Your task to perform on an android device: toggle location history Image 0: 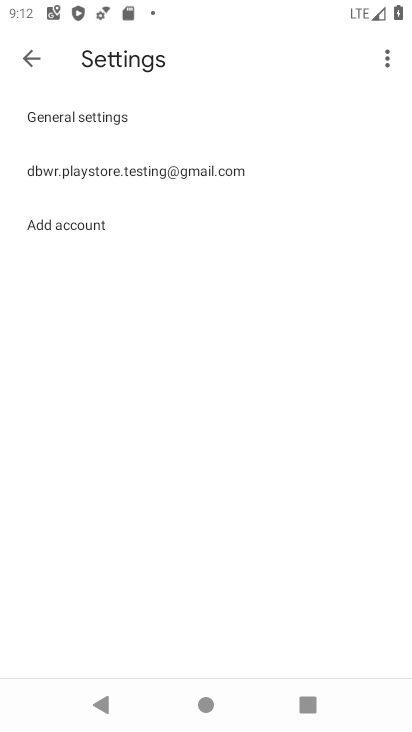
Step 0: press home button
Your task to perform on an android device: toggle location history Image 1: 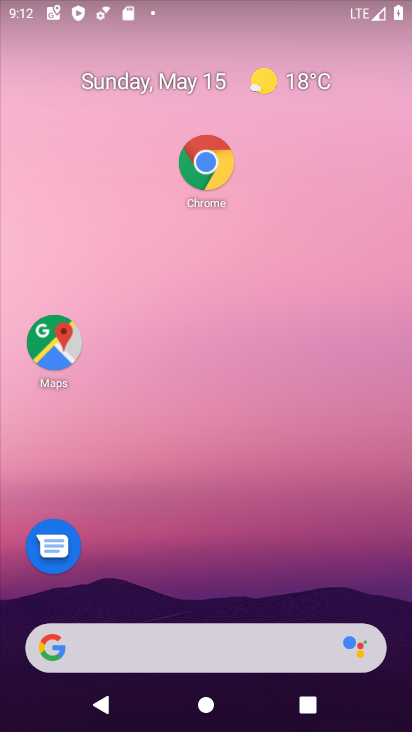
Step 1: drag from (257, 593) to (281, 134)
Your task to perform on an android device: toggle location history Image 2: 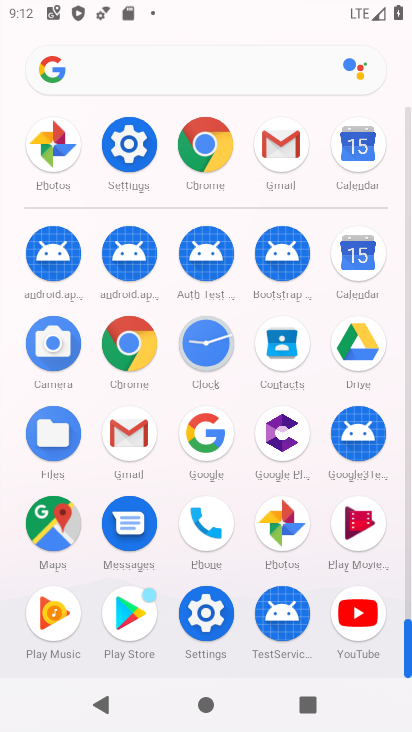
Step 2: click (128, 125)
Your task to perform on an android device: toggle location history Image 3: 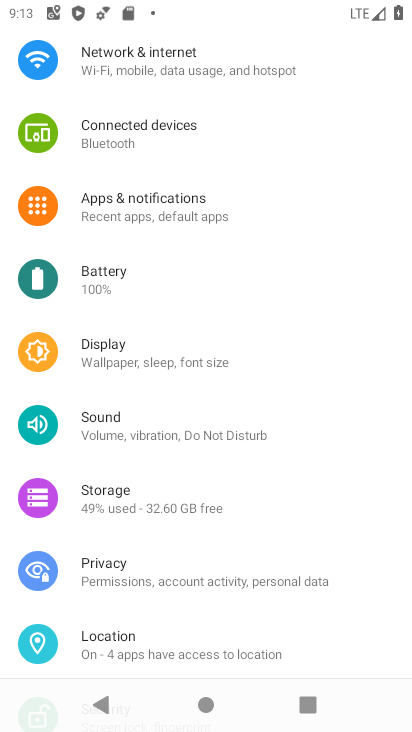
Step 3: drag from (143, 583) to (204, 335)
Your task to perform on an android device: toggle location history Image 4: 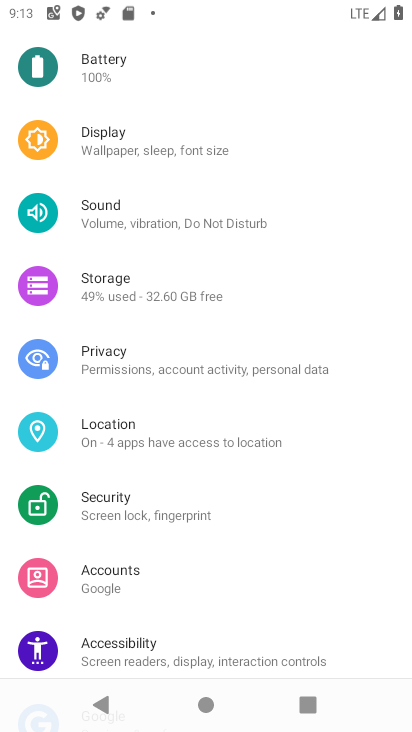
Step 4: click (172, 439)
Your task to perform on an android device: toggle location history Image 5: 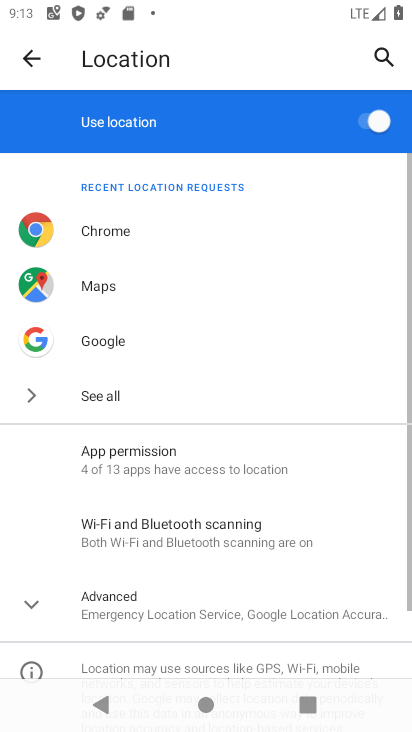
Step 5: click (351, 119)
Your task to perform on an android device: toggle location history Image 6: 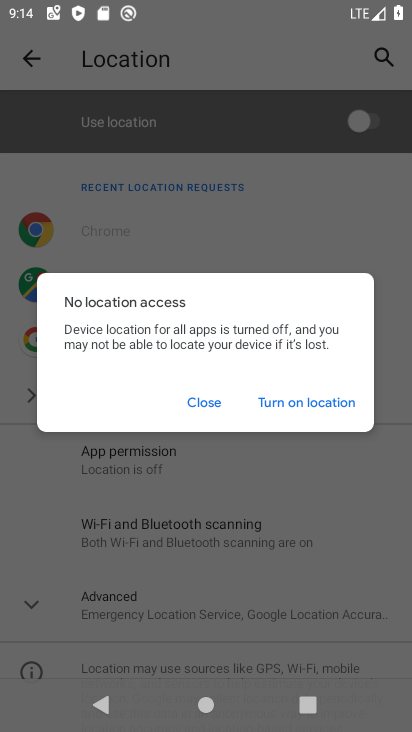
Step 6: task complete